Your task to perform on an android device: Do I have any events tomorrow? Image 0: 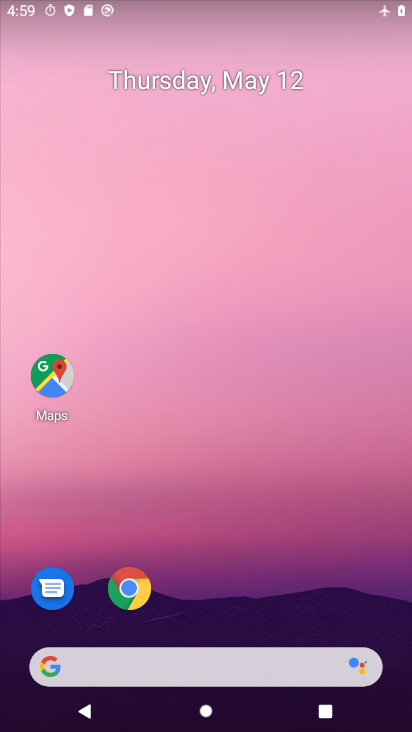
Step 0: drag from (226, 551) to (319, 0)
Your task to perform on an android device: Do I have any events tomorrow? Image 1: 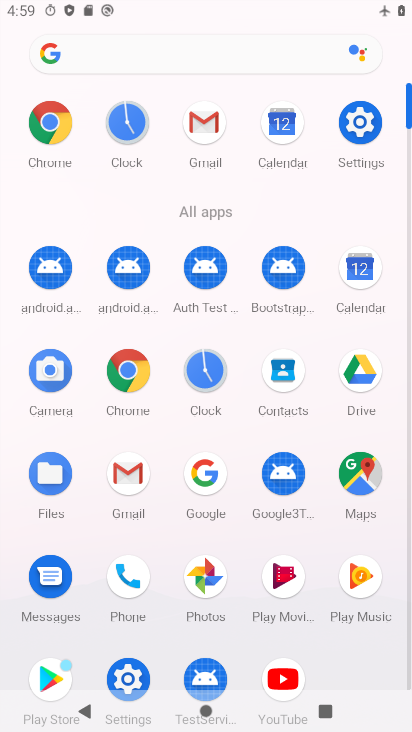
Step 1: click (354, 292)
Your task to perform on an android device: Do I have any events tomorrow? Image 2: 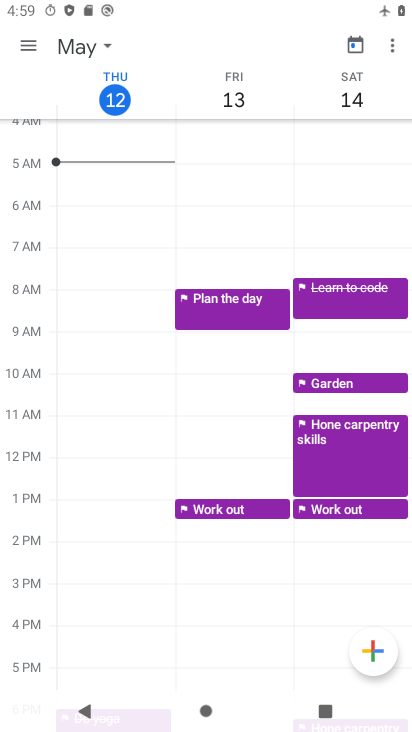
Step 2: click (27, 64)
Your task to perform on an android device: Do I have any events tomorrow? Image 3: 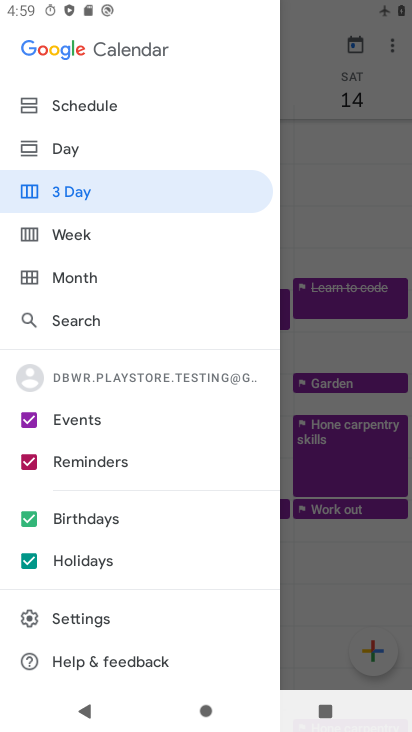
Step 3: click (84, 468)
Your task to perform on an android device: Do I have any events tomorrow? Image 4: 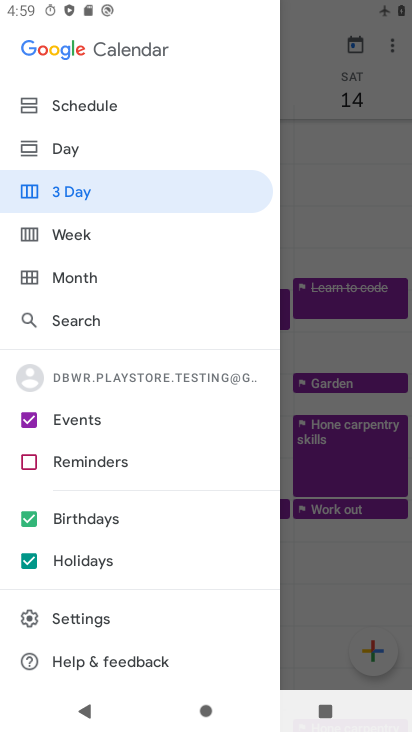
Step 4: click (72, 515)
Your task to perform on an android device: Do I have any events tomorrow? Image 5: 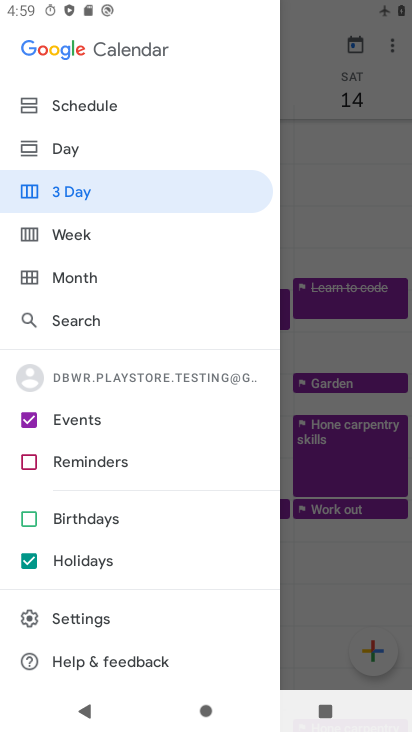
Step 5: click (74, 556)
Your task to perform on an android device: Do I have any events tomorrow? Image 6: 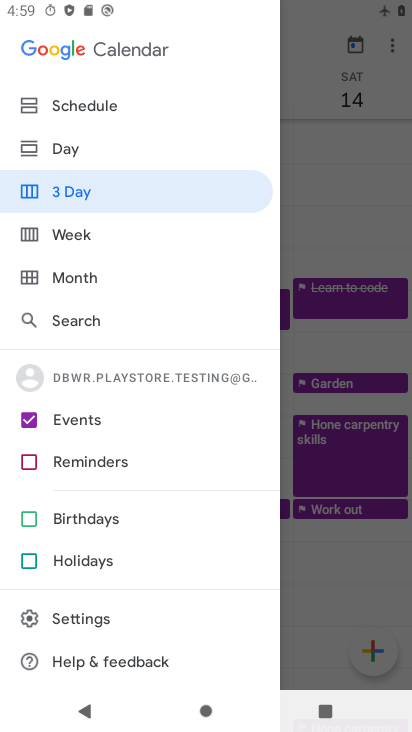
Step 6: click (134, 183)
Your task to perform on an android device: Do I have any events tomorrow? Image 7: 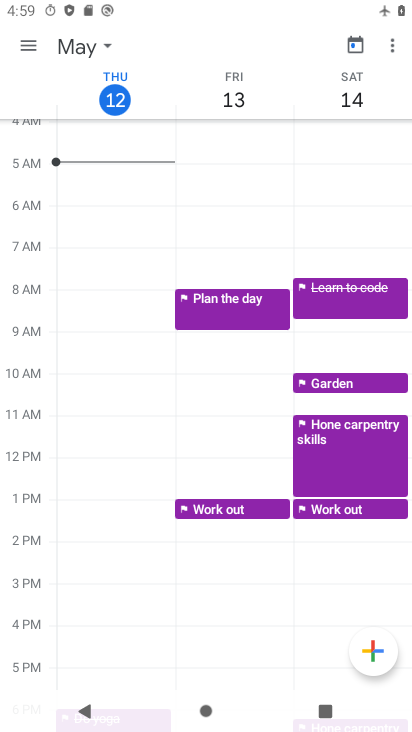
Step 7: task complete